Your task to perform on an android device: toggle sleep mode Image 0: 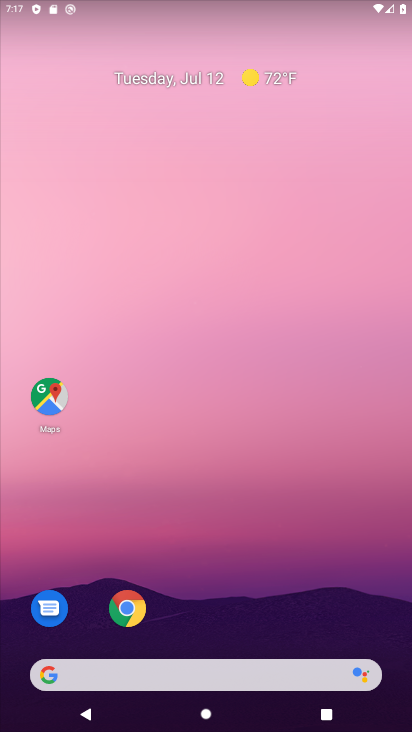
Step 0: drag from (210, 554) to (192, 46)
Your task to perform on an android device: toggle sleep mode Image 1: 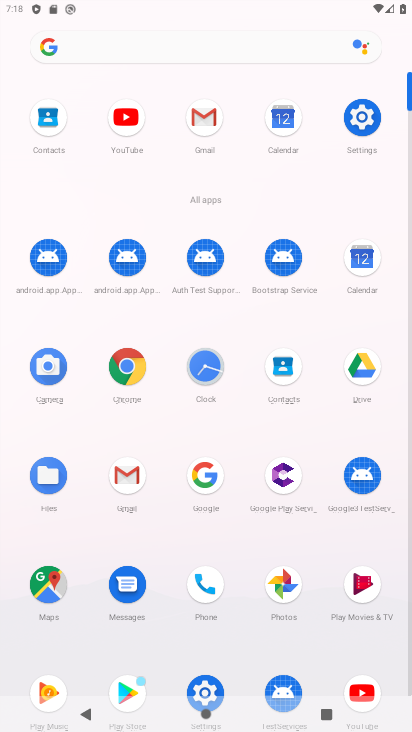
Step 1: click (358, 116)
Your task to perform on an android device: toggle sleep mode Image 2: 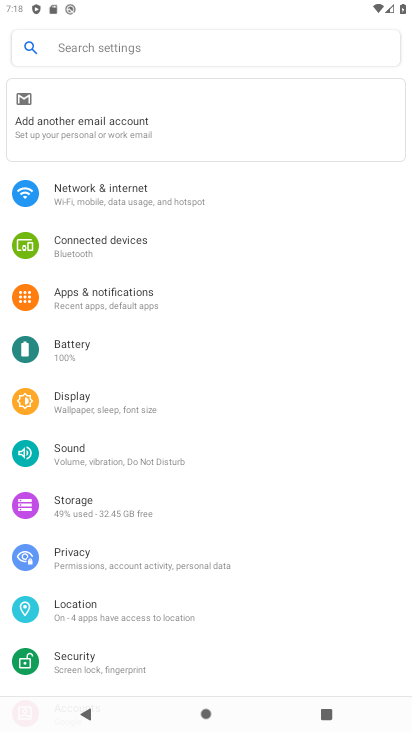
Step 2: click (50, 393)
Your task to perform on an android device: toggle sleep mode Image 3: 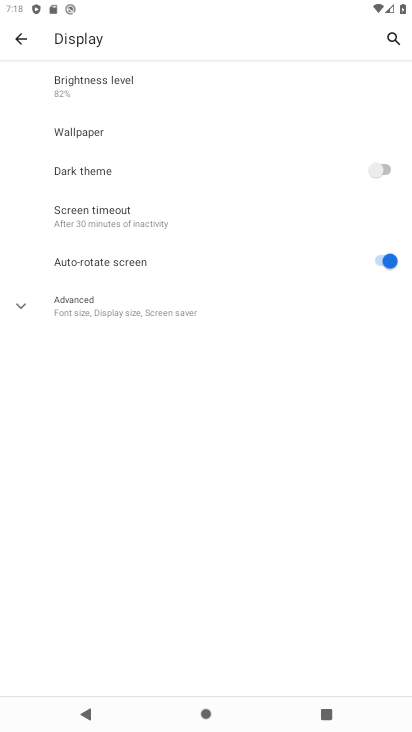
Step 3: task complete